Your task to perform on an android device: Is it going to rain this weekend? Image 0: 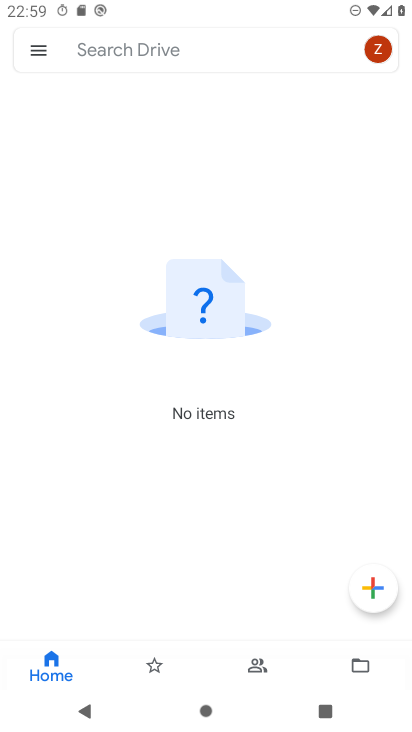
Step 0: press home button
Your task to perform on an android device: Is it going to rain this weekend? Image 1: 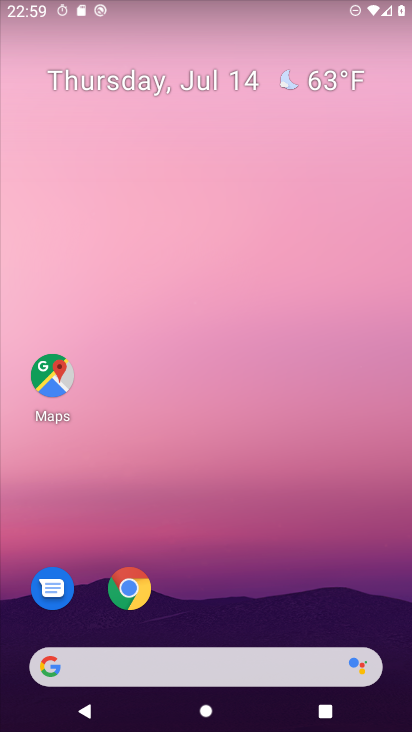
Step 1: click (283, 667)
Your task to perform on an android device: Is it going to rain this weekend? Image 2: 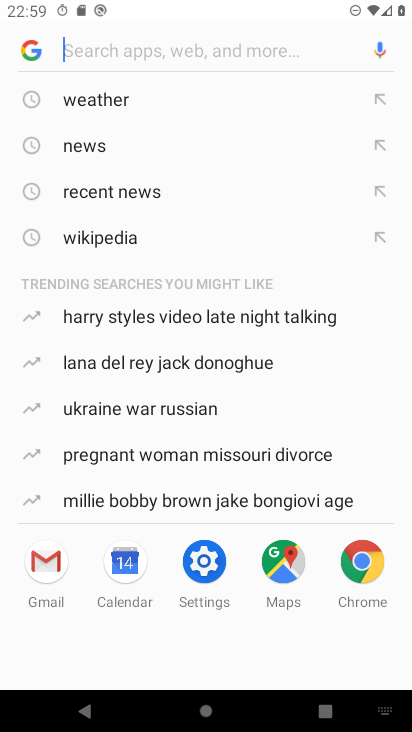
Step 2: click (110, 95)
Your task to perform on an android device: Is it going to rain this weekend? Image 3: 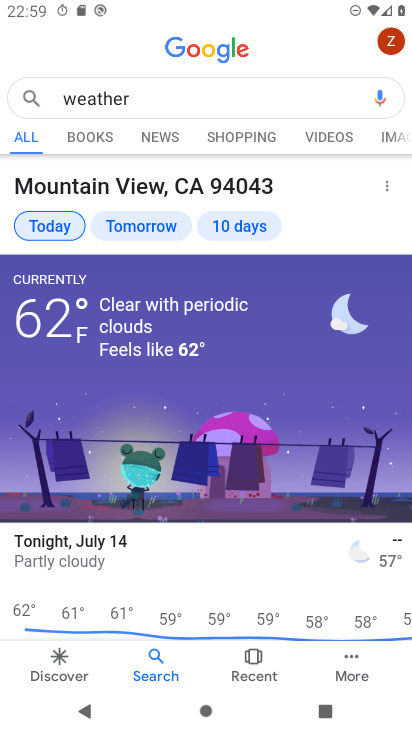
Step 3: click (247, 223)
Your task to perform on an android device: Is it going to rain this weekend? Image 4: 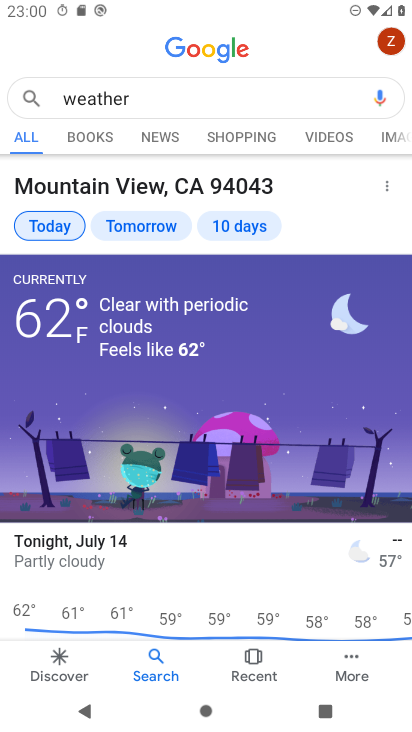
Step 4: task complete